Your task to perform on an android device: check android version Image 0: 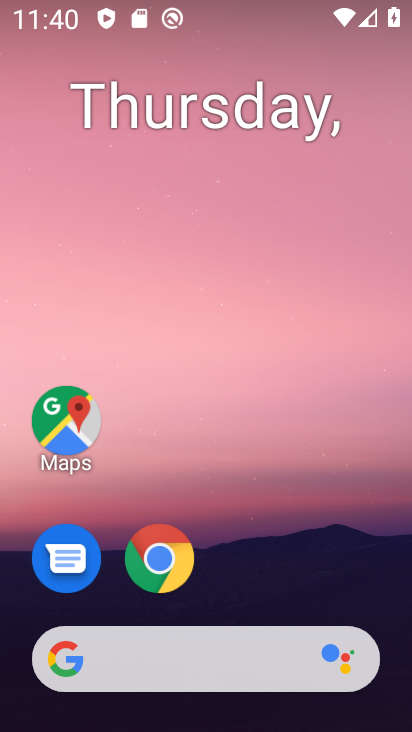
Step 0: drag from (361, 588) to (364, 99)
Your task to perform on an android device: check android version Image 1: 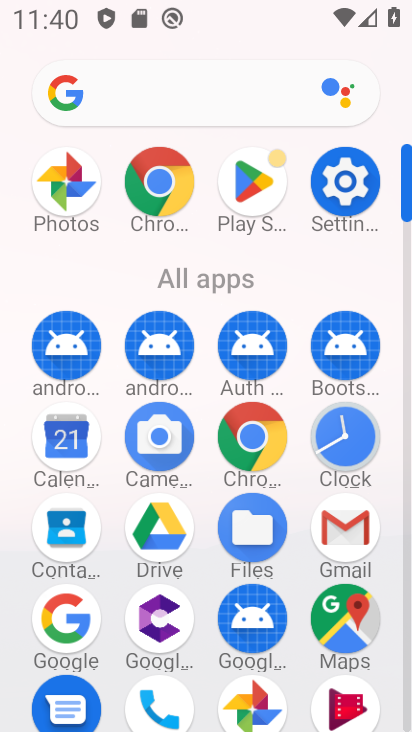
Step 1: click (353, 207)
Your task to perform on an android device: check android version Image 2: 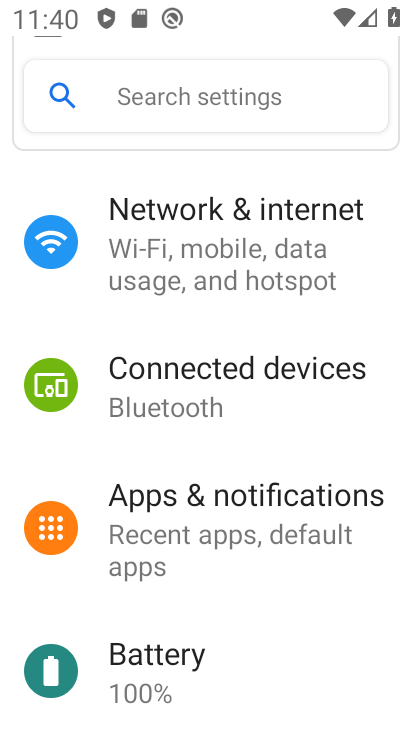
Step 2: drag from (354, 405) to (354, 360)
Your task to perform on an android device: check android version Image 3: 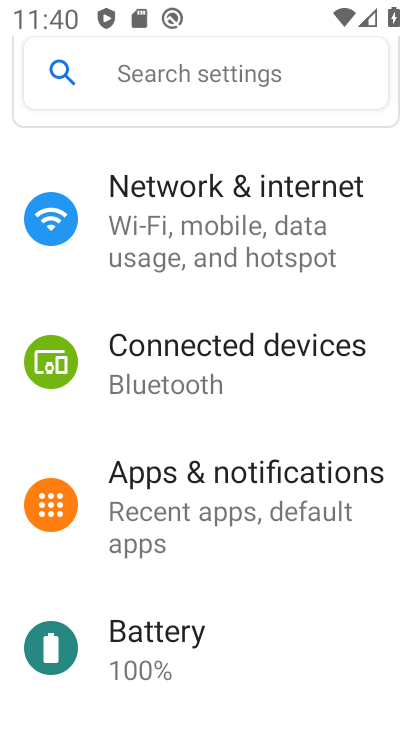
Step 3: drag from (358, 414) to (358, 359)
Your task to perform on an android device: check android version Image 4: 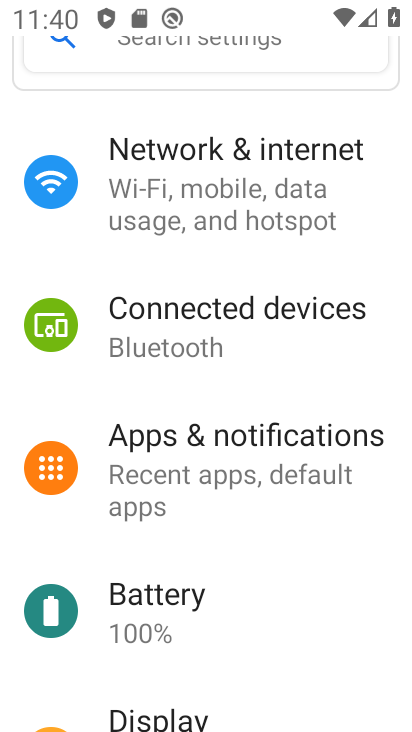
Step 4: drag from (357, 484) to (368, 420)
Your task to perform on an android device: check android version Image 5: 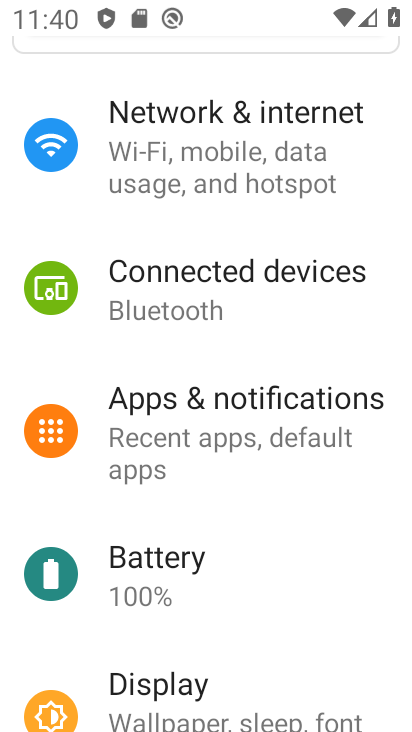
Step 5: drag from (361, 513) to (365, 442)
Your task to perform on an android device: check android version Image 6: 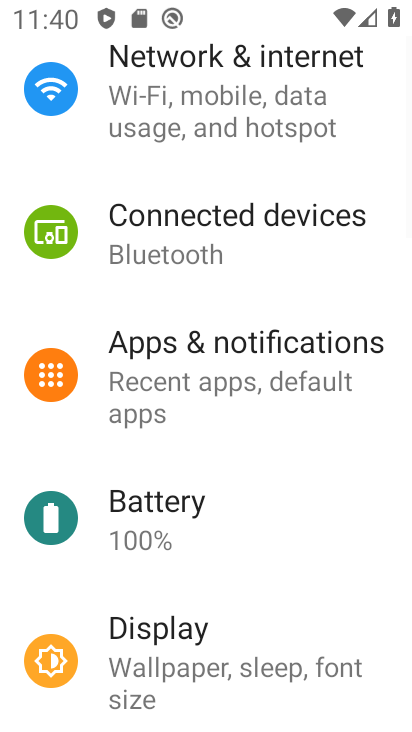
Step 6: drag from (357, 501) to (360, 422)
Your task to perform on an android device: check android version Image 7: 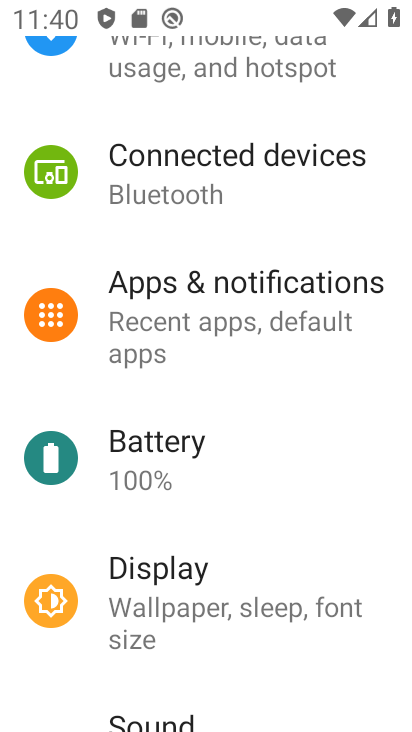
Step 7: drag from (349, 480) to (358, 409)
Your task to perform on an android device: check android version Image 8: 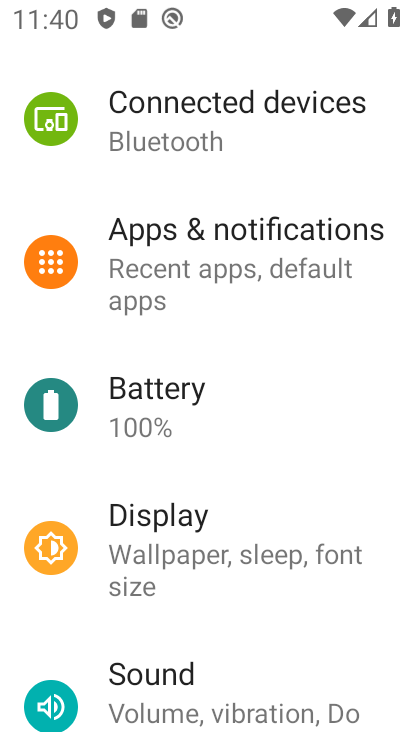
Step 8: drag from (371, 493) to (374, 413)
Your task to perform on an android device: check android version Image 9: 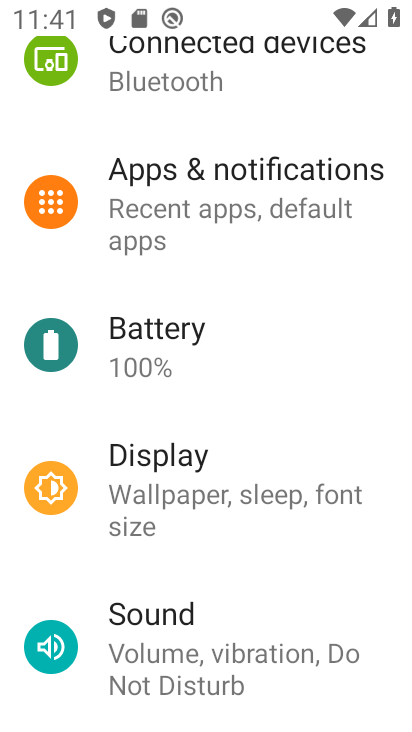
Step 9: drag from (368, 527) to (383, 434)
Your task to perform on an android device: check android version Image 10: 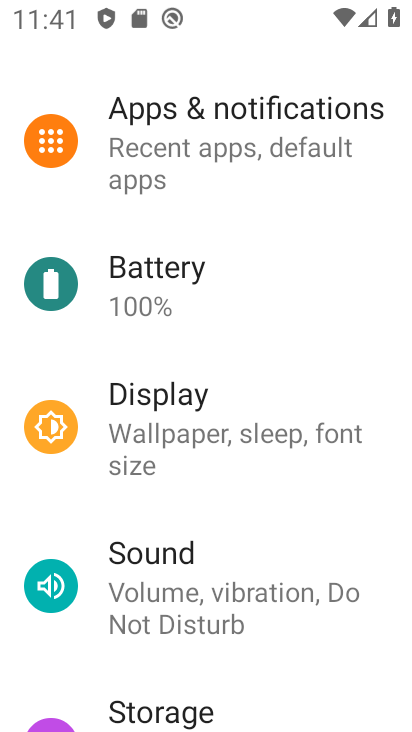
Step 10: drag from (370, 527) to (376, 448)
Your task to perform on an android device: check android version Image 11: 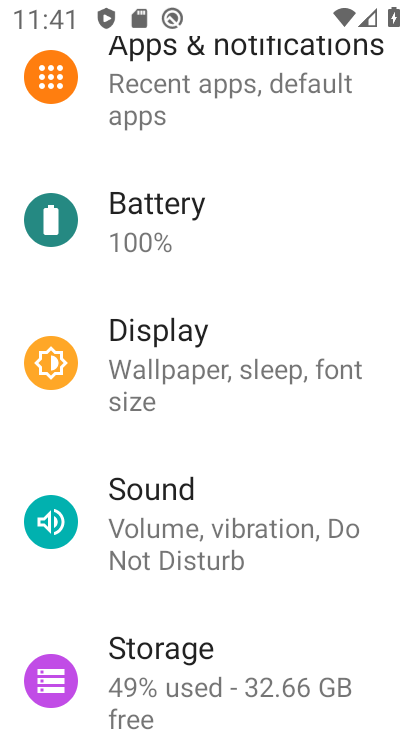
Step 11: drag from (376, 566) to (379, 479)
Your task to perform on an android device: check android version Image 12: 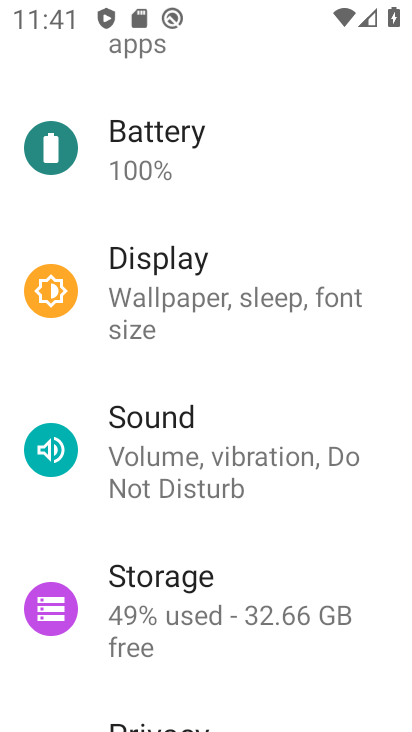
Step 12: drag from (369, 557) to (369, 483)
Your task to perform on an android device: check android version Image 13: 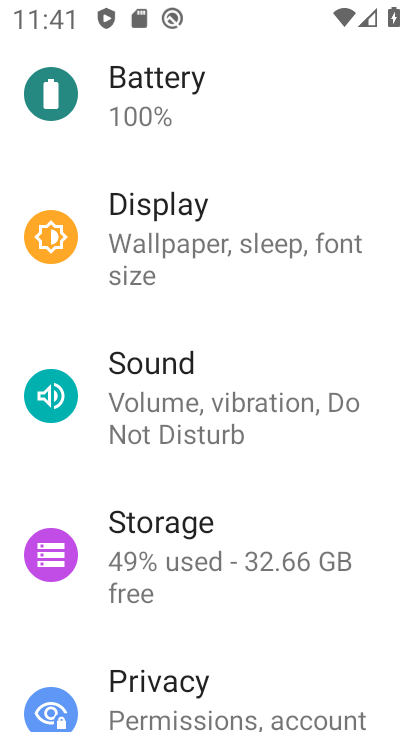
Step 13: drag from (373, 580) to (381, 508)
Your task to perform on an android device: check android version Image 14: 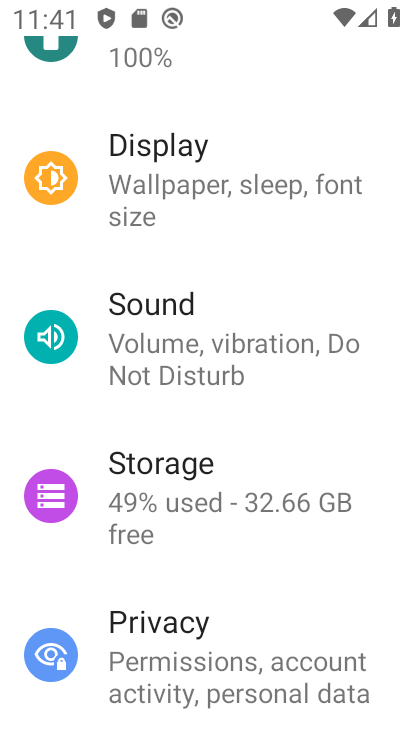
Step 14: drag from (367, 584) to (375, 508)
Your task to perform on an android device: check android version Image 15: 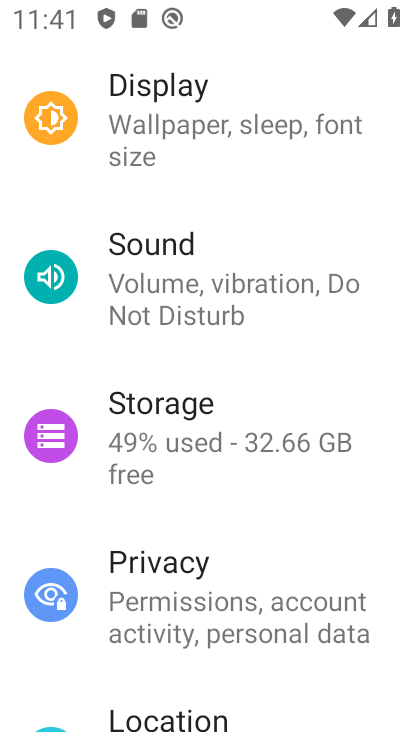
Step 15: drag from (377, 616) to (377, 520)
Your task to perform on an android device: check android version Image 16: 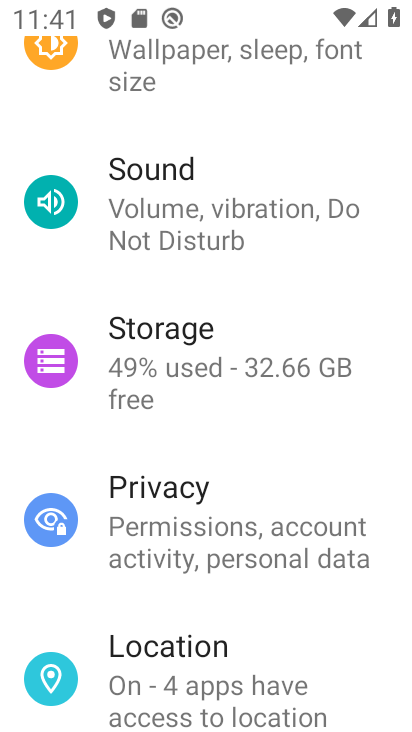
Step 16: drag from (368, 620) to (370, 533)
Your task to perform on an android device: check android version Image 17: 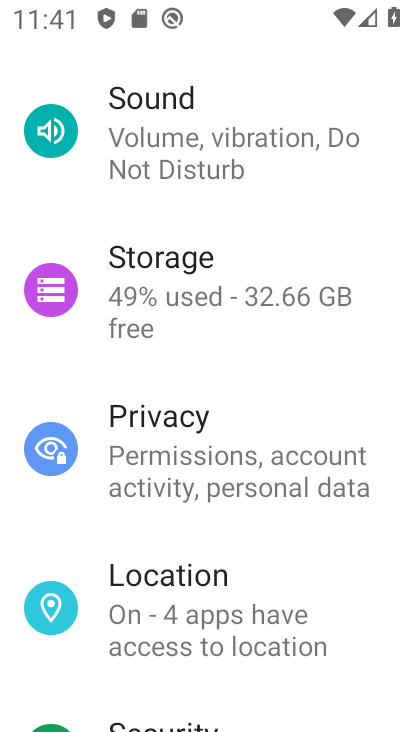
Step 17: drag from (361, 633) to (374, 540)
Your task to perform on an android device: check android version Image 18: 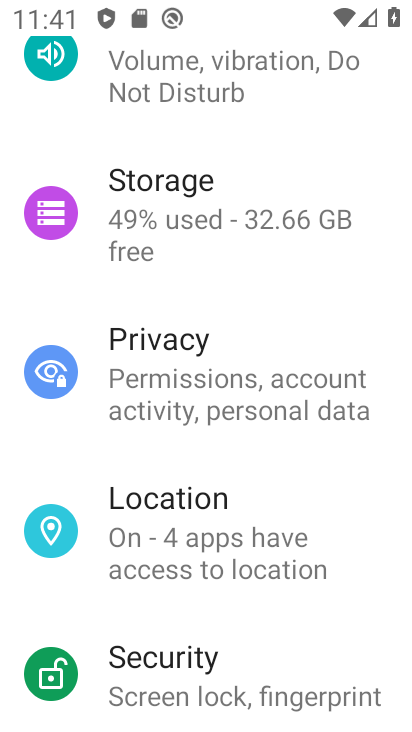
Step 18: drag from (355, 644) to (354, 543)
Your task to perform on an android device: check android version Image 19: 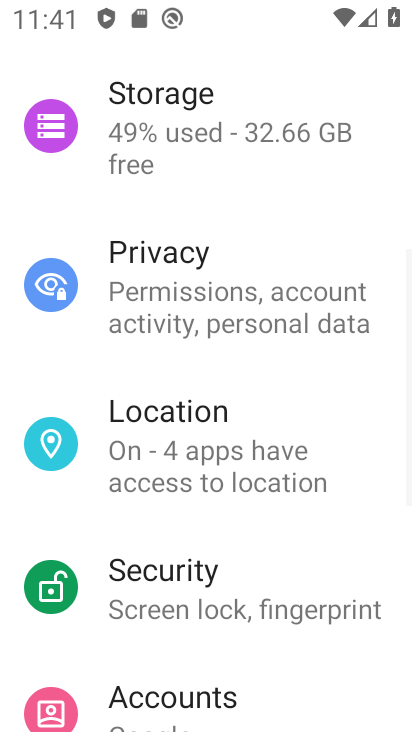
Step 19: drag from (350, 653) to (350, 554)
Your task to perform on an android device: check android version Image 20: 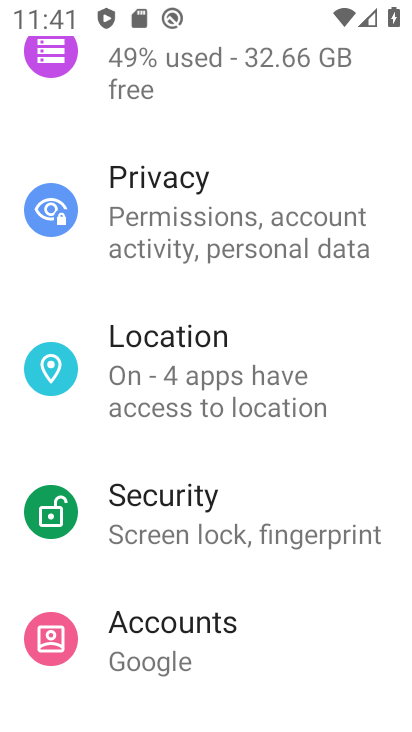
Step 20: drag from (335, 631) to (341, 529)
Your task to perform on an android device: check android version Image 21: 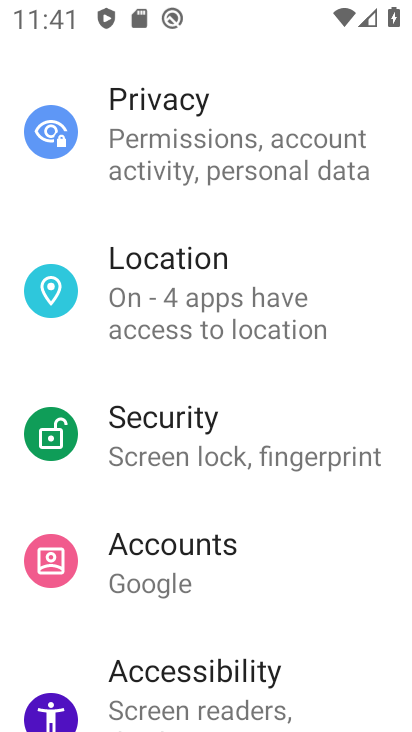
Step 21: drag from (342, 655) to (346, 531)
Your task to perform on an android device: check android version Image 22: 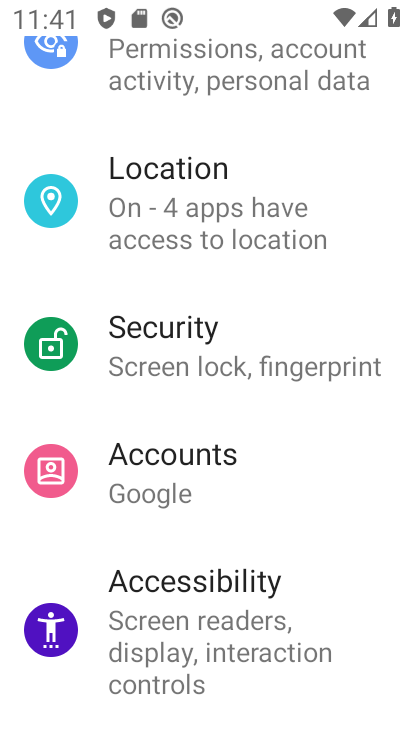
Step 22: drag from (353, 560) to (345, 480)
Your task to perform on an android device: check android version Image 23: 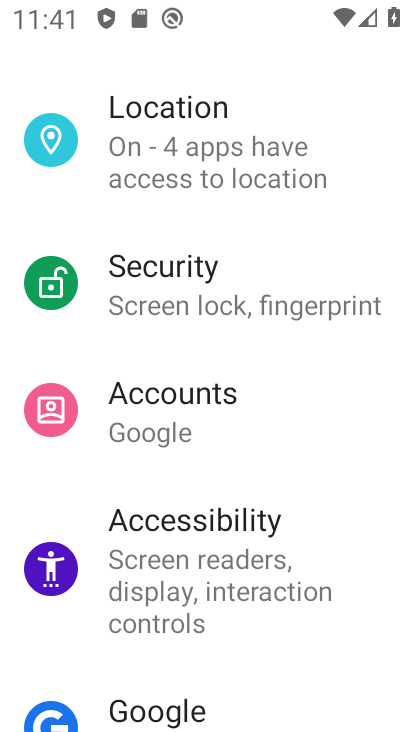
Step 23: drag from (343, 577) to (343, 469)
Your task to perform on an android device: check android version Image 24: 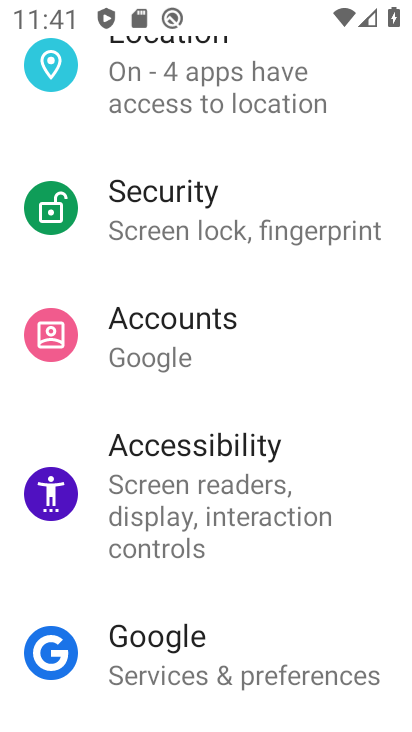
Step 24: drag from (348, 577) to (349, 470)
Your task to perform on an android device: check android version Image 25: 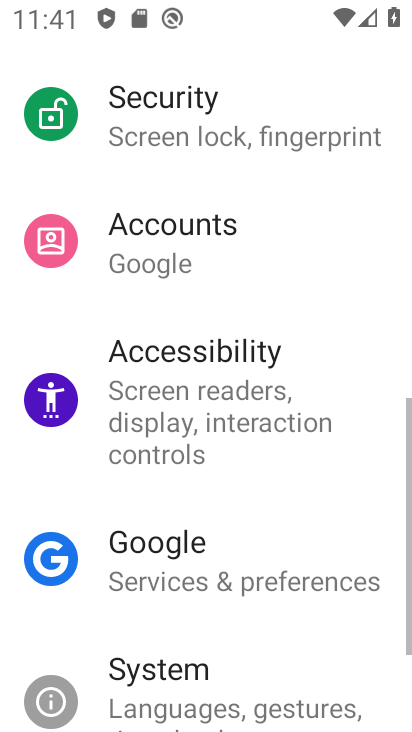
Step 25: drag from (352, 627) to (352, 404)
Your task to perform on an android device: check android version Image 26: 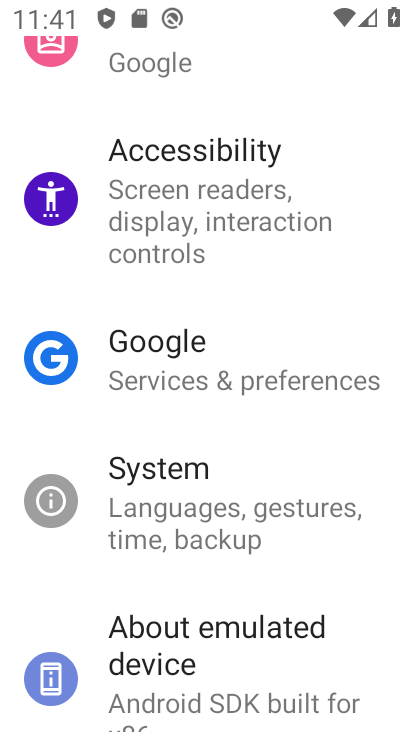
Step 26: click (341, 501)
Your task to perform on an android device: check android version Image 27: 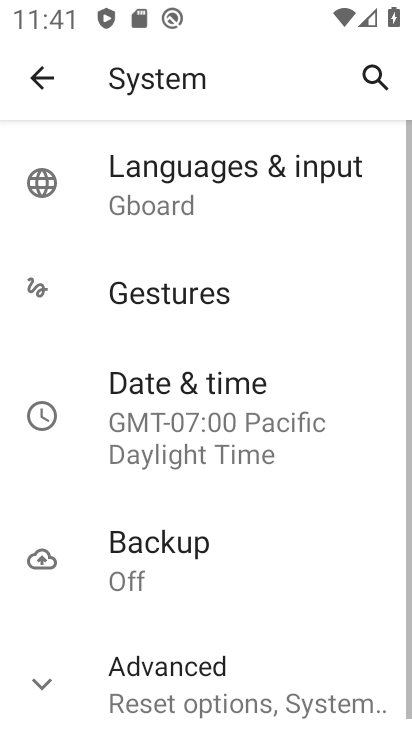
Step 27: click (308, 671)
Your task to perform on an android device: check android version Image 28: 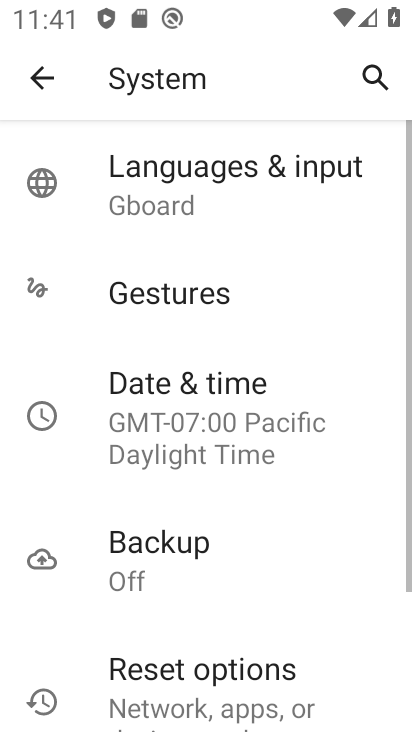
Step 28: drag from (323, 611) to (313, 445)
Your task to perform on an android device: check android version Image 29: 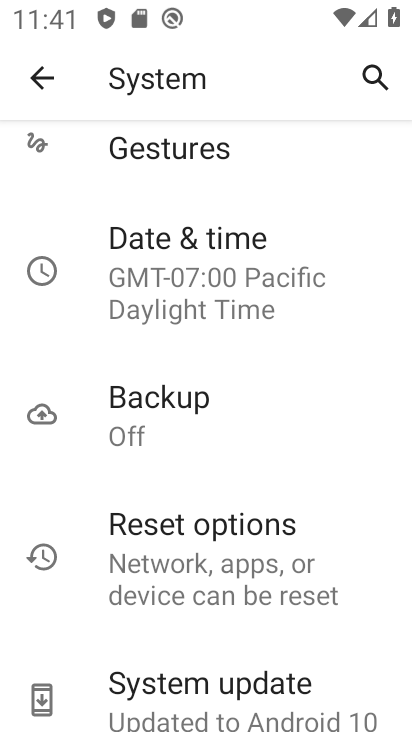
Step 29: drag from (324, 640) to (332, 500)
Your task to perform on an android device: check android version Image 30: 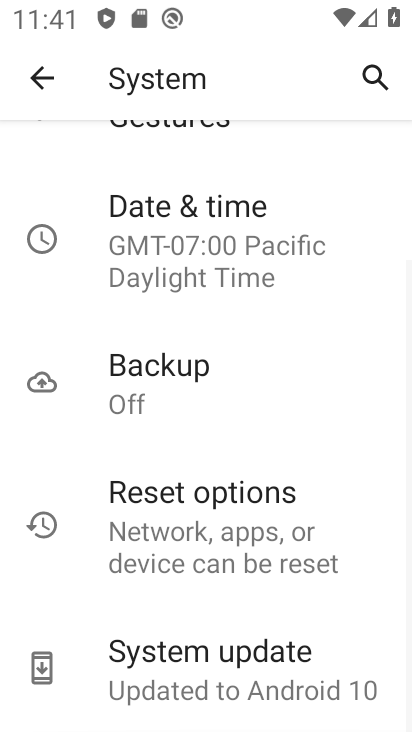
Step 30: click (323, 673)
Your task to perform on an android device: check android version Image 31: 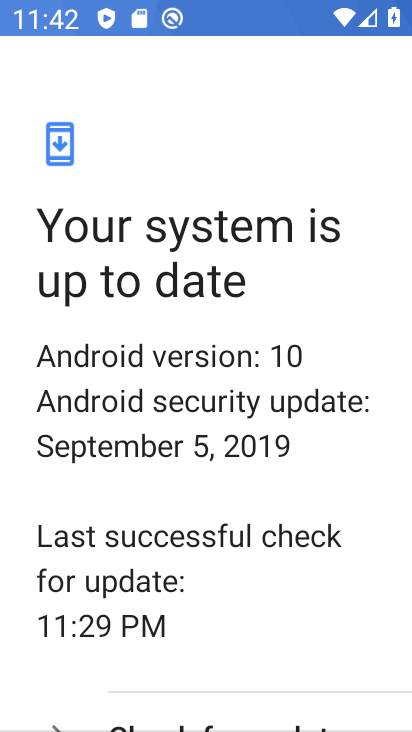
Step 31: task complete